Your task to perform on an android device: open device folders in google photos Image 0: 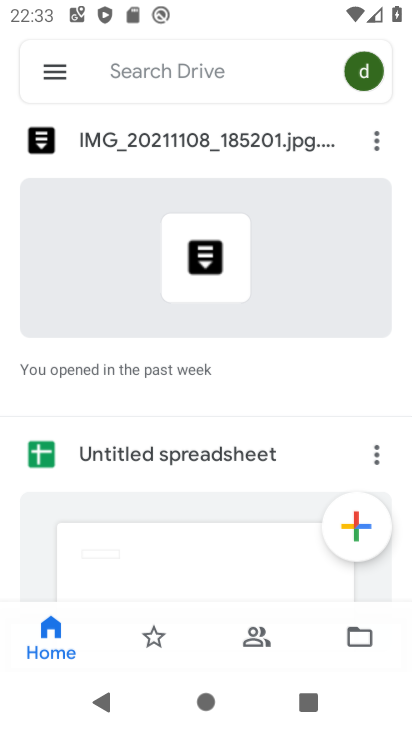
Step 0: drag from (194, 562) to (404, 232)
Your task to perform on an android device: open device folders in google photos Image 1: 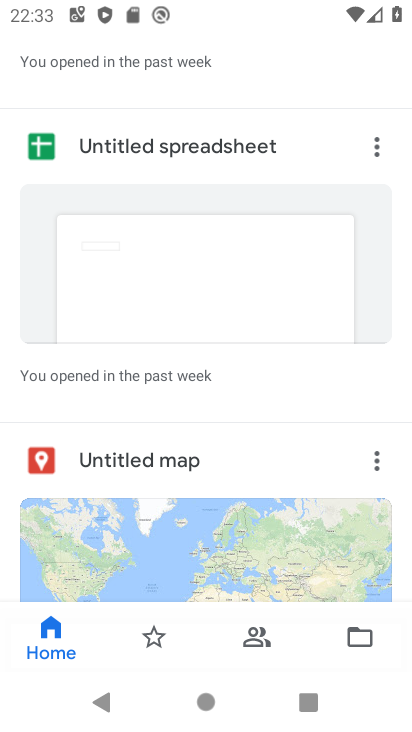
Step 1: press home button
Your task to perform on an android device: open device folders in google photos Image 2: 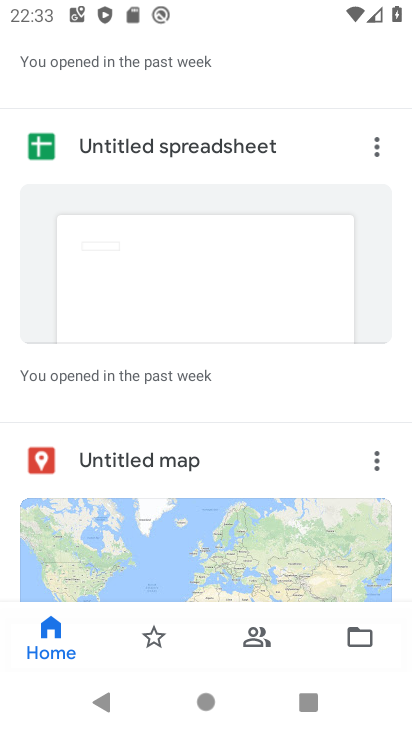
Step 2: click (333, 249)
Your task to perform on an android device: open device folders in google photos Image 3: 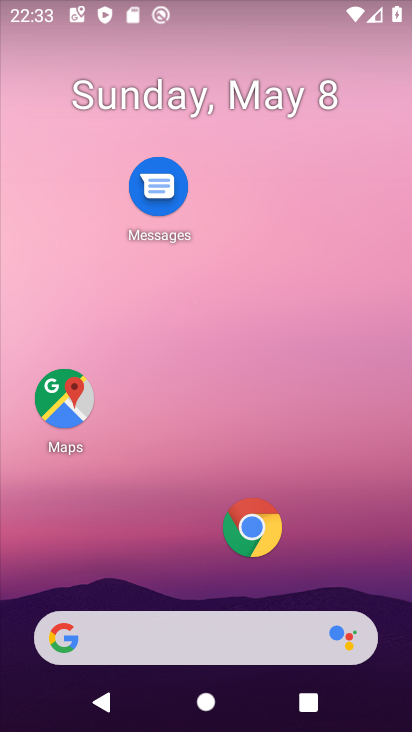
Step 3: drag from (160, 526) to (139, 102)
Your task to perform on an android device: open device folders in google photos Image 4: 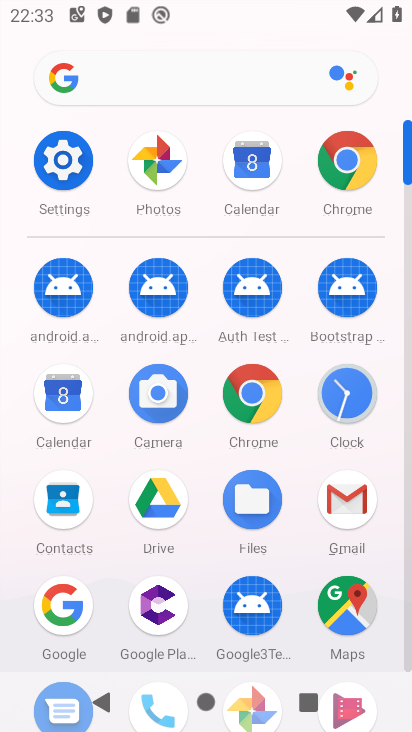
Step 4: click (160, 155)
Your task to perform on an android device: open device folders in google photos Image 5: 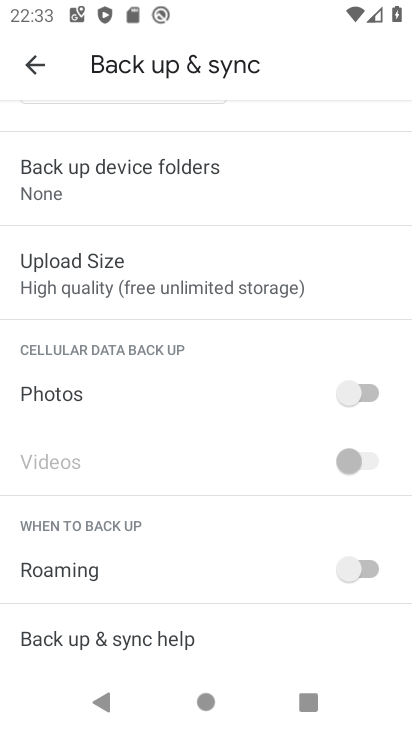
Step 5: press back button
Your task to perform on an android device: open device folders in google photos Image 6: 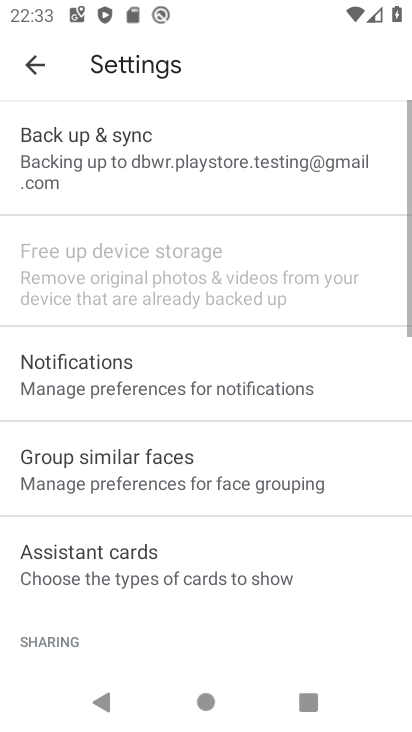
Step 6: press back button
Your task to perform on an android device: open device folders in google photos Image 7: 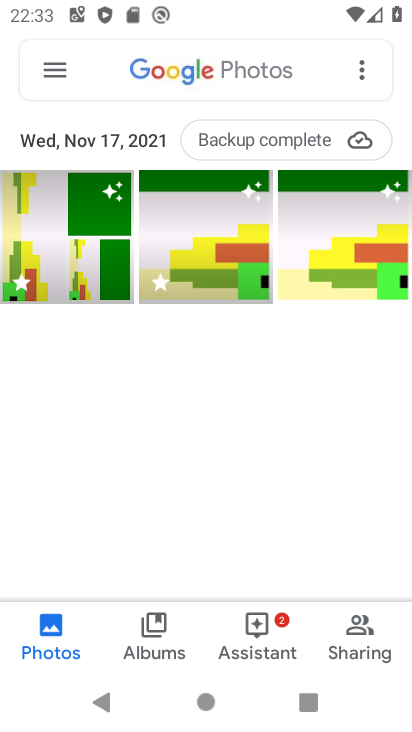
Step 7: click (50, 77)
Your task to perform on an android device: open device folders in google photos Image 8: 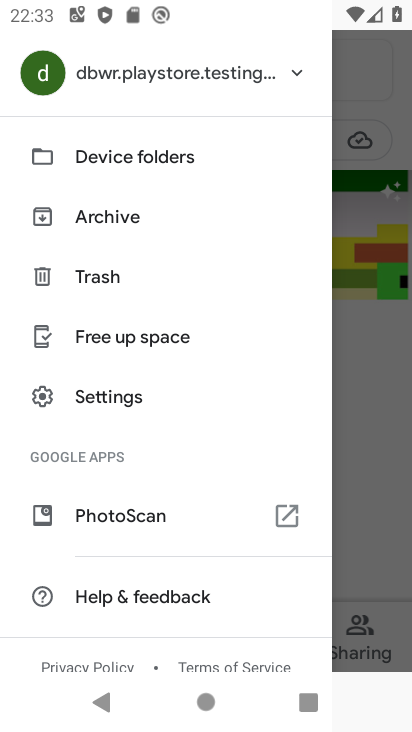
Step 8: click (128, 161)
Your task to perform on an android device: open device folders in google photos Image 9: 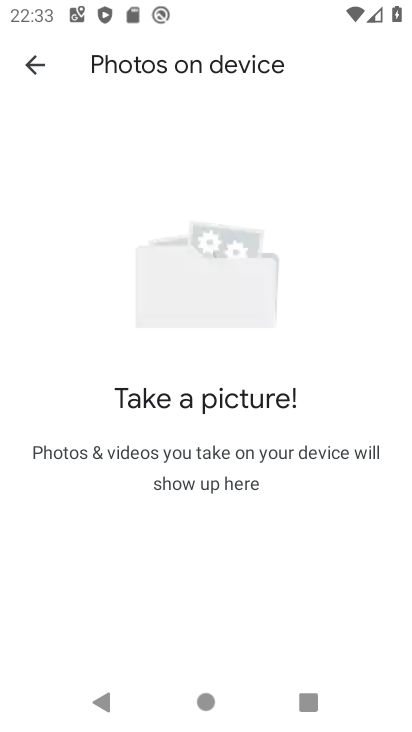
Step 9: task complete